Your task to perform on an android device: Show me the alarms in the clock app Image 0: 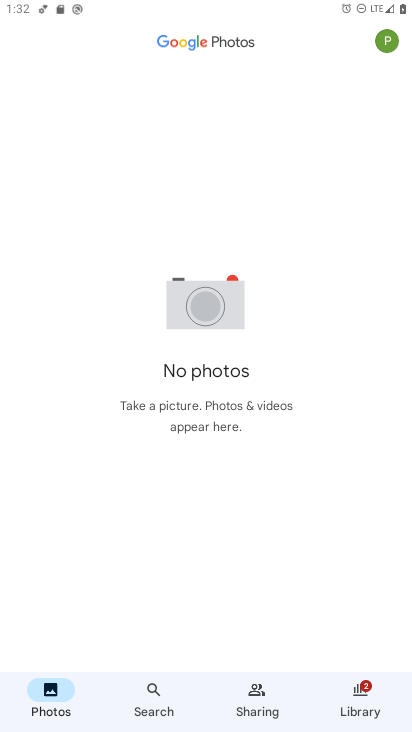
Step 0: press home button
Your task to perform on an android device: Show me the alarms in the clock app Image 1: 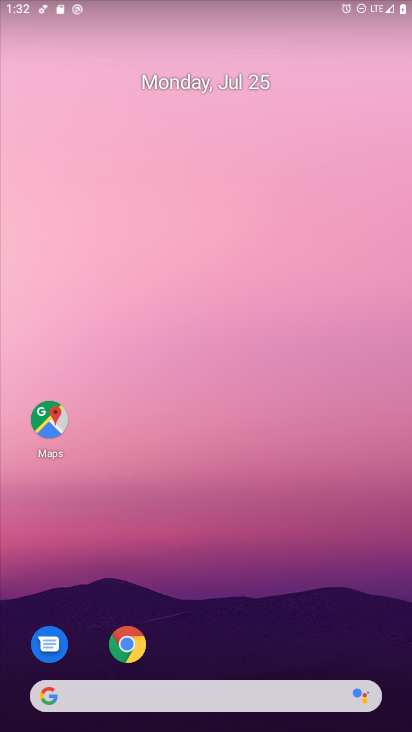
Step 1: drag from (220, 599) to (240, 1)
Your task to perform on an android device: Show me the alarms in the clock app Image 2: 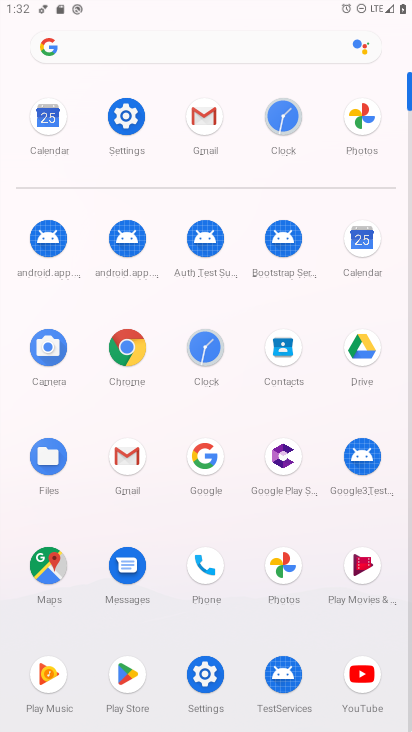
Step 2: click (198, 344)
Your task to perform on an android device: Show me the alarms in the clock app Image 3: 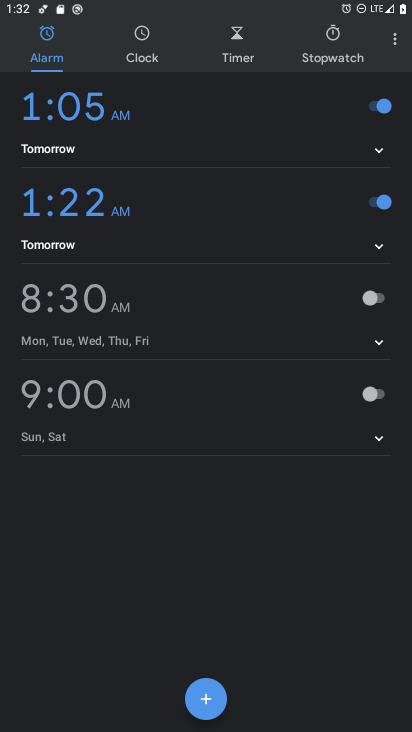
Step 3: task complete